Your task to perform on an android device: make emails show in primary in the gmail app Image 0: 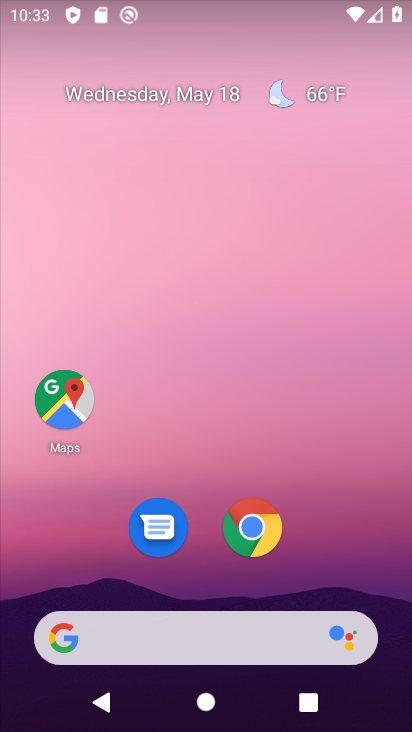
Step 0: drag from (387, 571) to (302, 191)
Your task to perform on an android device: make emails show in primary in the gmail app Image 1: 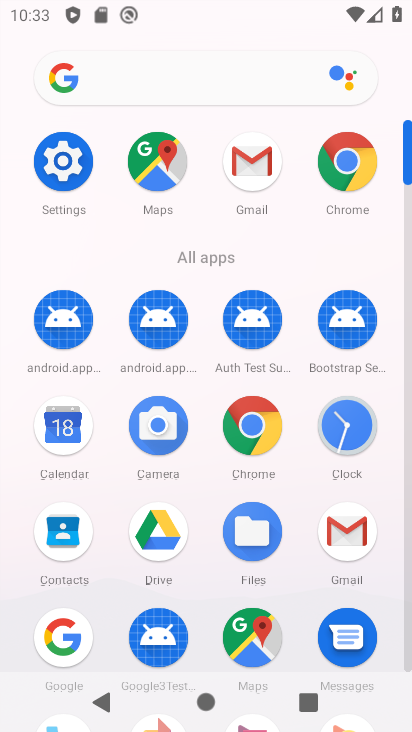
Step 1: click (252, 175)
Your task to perform on an android device: make emails show in primary in the gmail app Image 2: 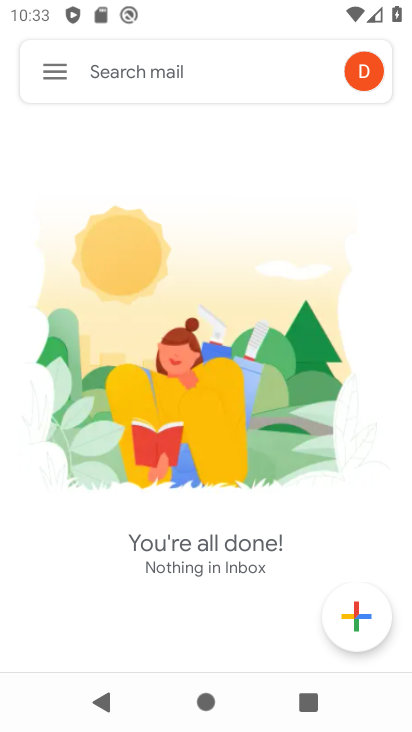
Step 2: click (53, 87)
Your task to perform on an android device: make emails show in primary in the gmail app Image 3: 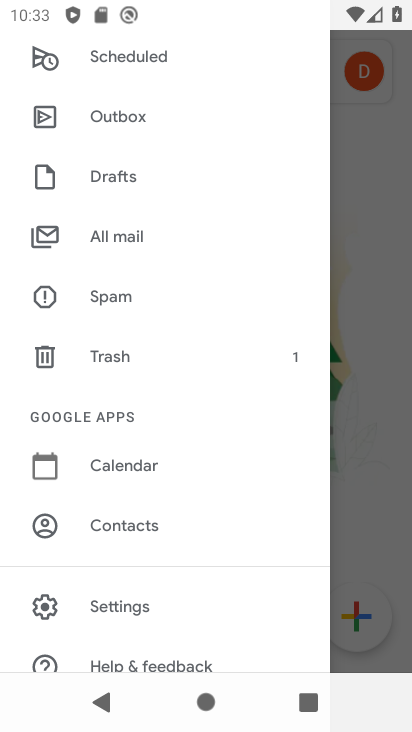
Step 3: click (176, 598)
Your task to perform on an android device: make emails show in primary in the gmail app Image 4: 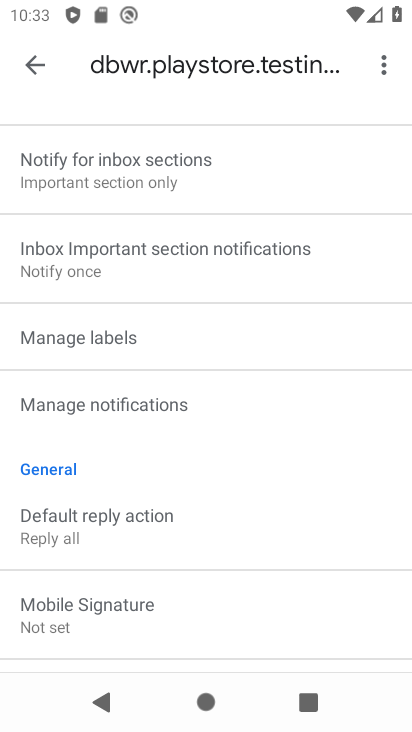
Step 4: drag from (271, 231) to (257, 694)
Your task to perform on an android device: make emails show in primary in the gmail app Image 5: 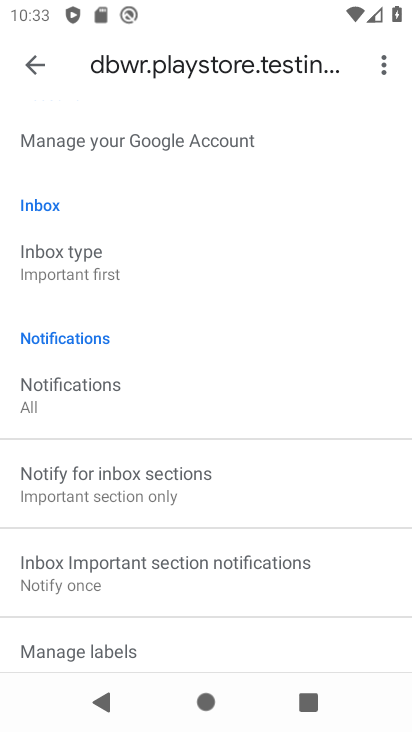
Step 5: click (175, 265)
Your task to perform on an android device: make emails show in primary in the gmail app Image 6: 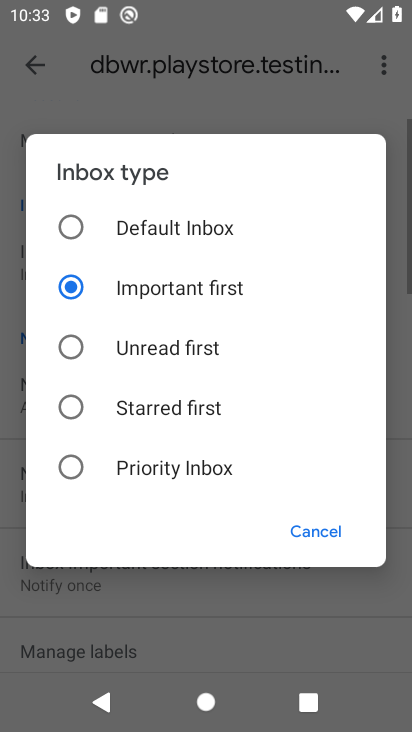
Step 6: click (186, 241)
Your task to perform on an android device: make emails show in primary in the gmail app Image 7: 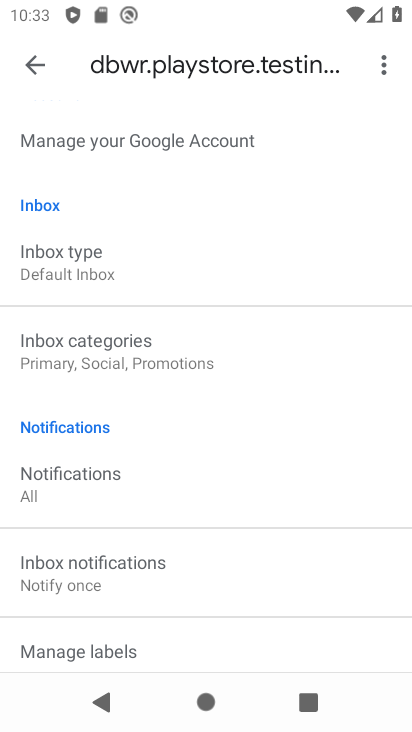
Step 7: task complete